Your task to perform on an android device: toggle priority inbox in the gmail app Image 0: 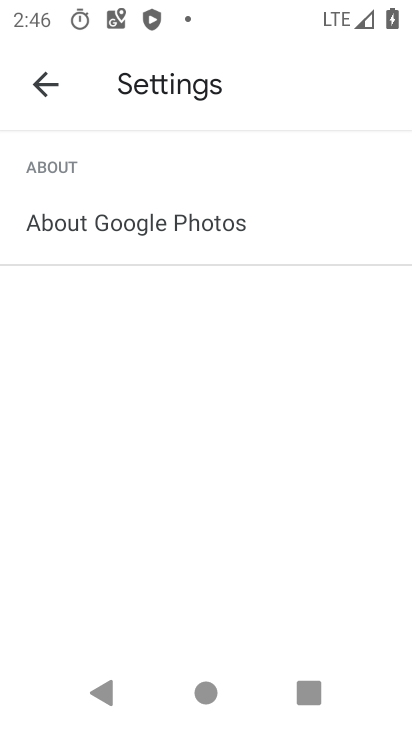
Step 0: press home button
Your task to perform on an android device: toggle priority inbox in the gmail app Image 1: 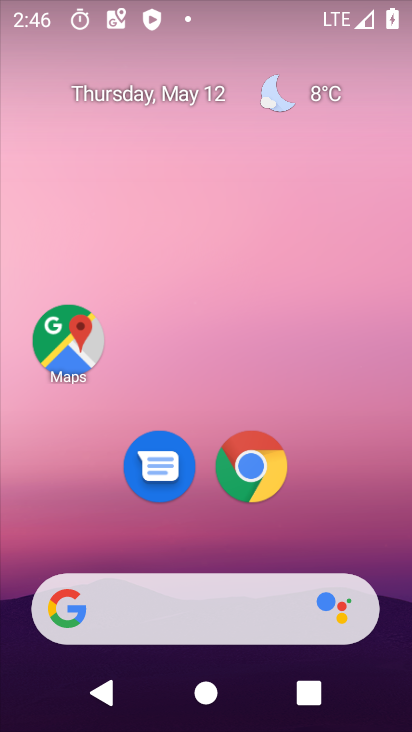
Step 1: drag from (96, 420) to (146, 123)
Your task to perform on an android device: toggle priority inbox in the gmail app Image 2: 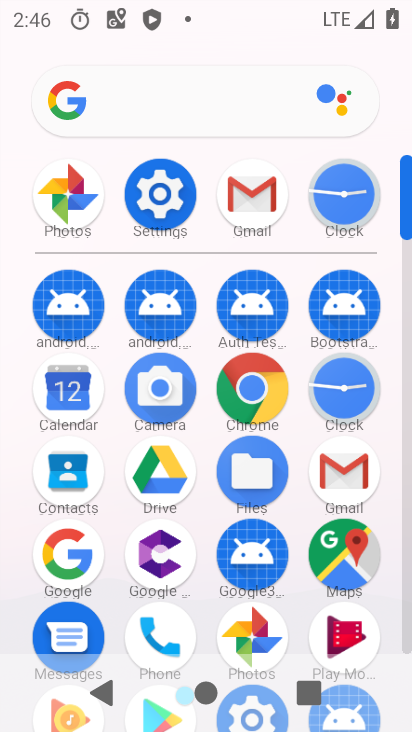
Step 2: click (248, 202)
Your task to perform on an android device: toggle priority inbox in the gmail app Image 3: 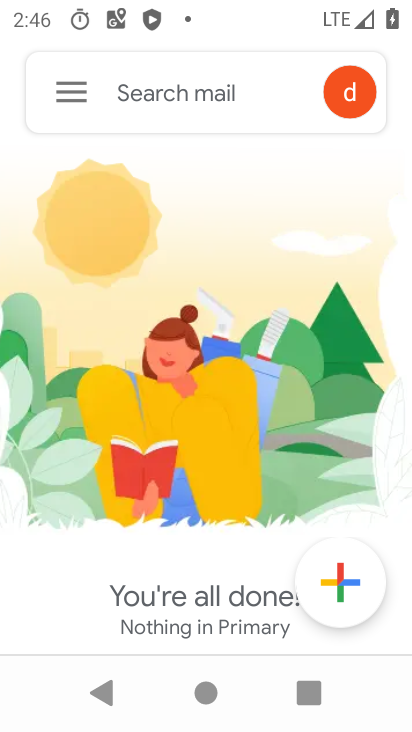
Step 3: click (71, 95)
Your task to perform on an android device: toggle priority inbox in the gmail app Image 4: 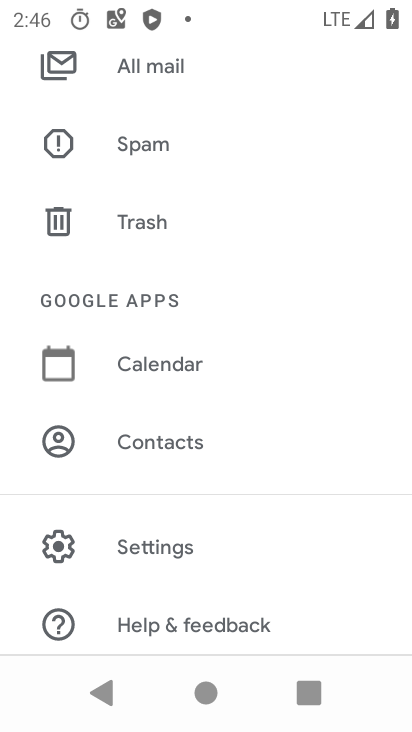
Step 4: click (156, 539)
Your task to perform on an android device: toggle priority inbox in the gmail app Image 5: 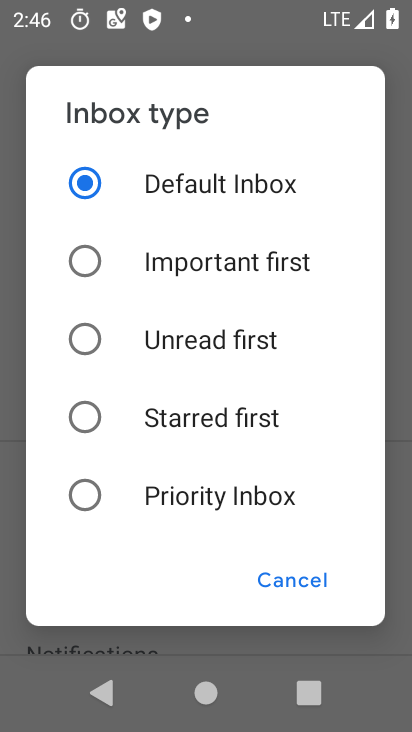
Step 5: click (88, 492)
Your task to perform on an android device: toggle priority inbox in the gmail app Image 6: 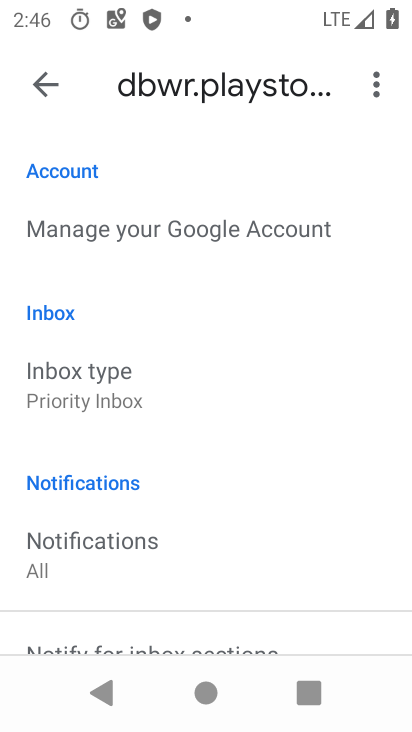
Step 6: task complete